Your task to perform on an android device: Find coffee shops on Maps Image 0: 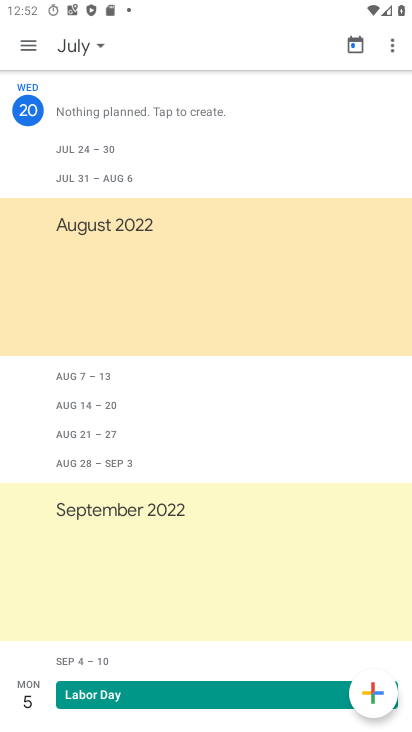
Step 0: press home button
Your task to perform on an android device: Find coffee shops on Maps Image 1: 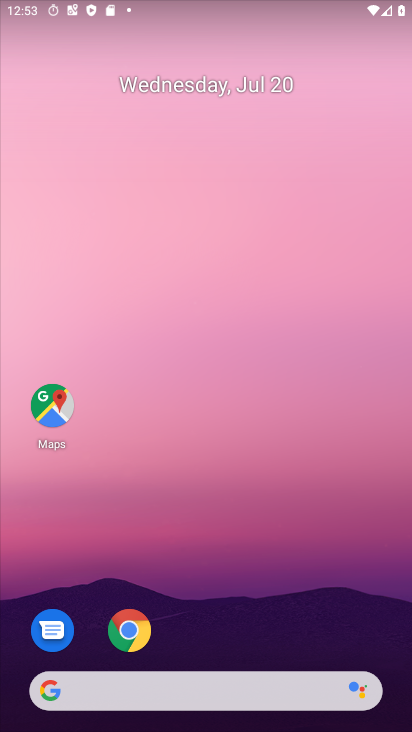
Step 1: click (51, 400)
Your task to perform on an android device: Find coffee shops on Maps Image 2: 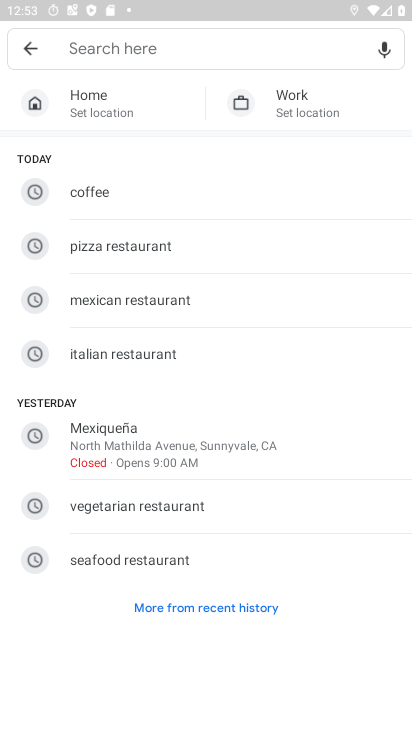
Step 2: click (92, 47)
Your task to perform on an android device: Find coffee shops on Maps Image 3: 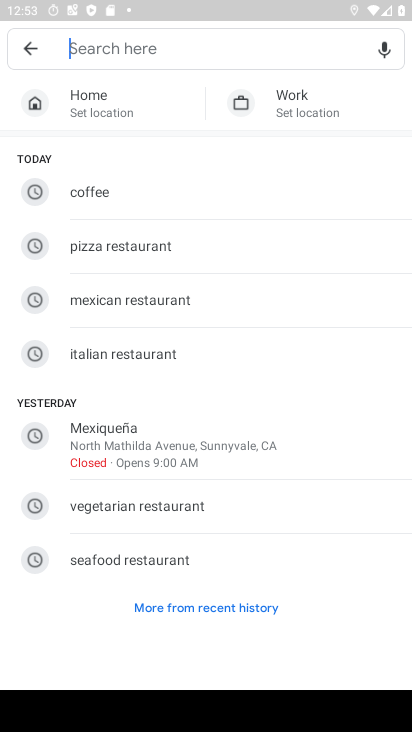
Step 3: type "coffee shops"
Your task to perform on an android device: Find coffee shops on Maps Image 4: 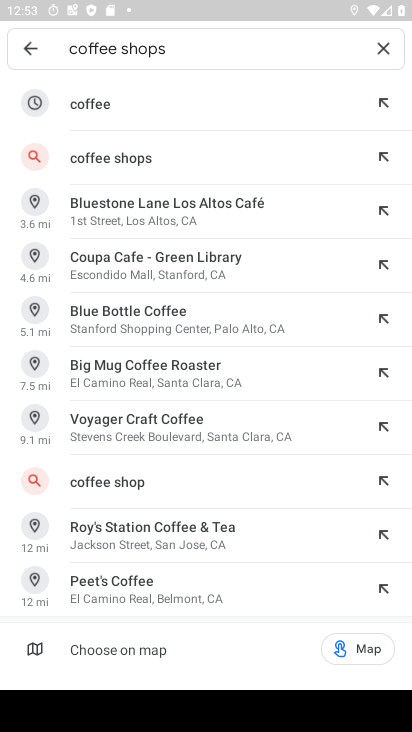
Step 4: click (209, 165)
Your task to perform on an android device: Find coffee shops on Maps Image 5: 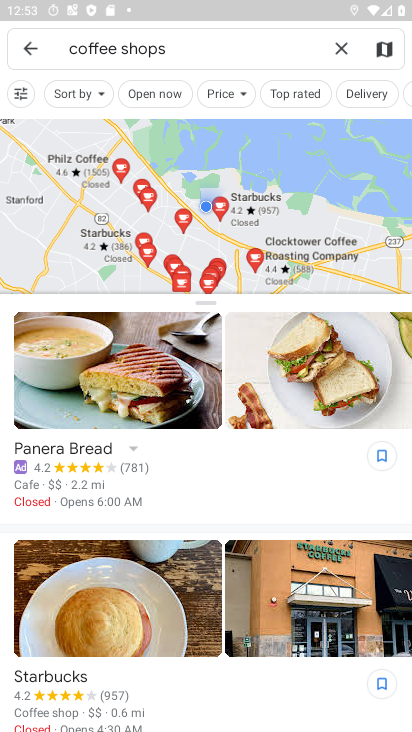
Step 5: task complete